Your task to perform on an android device: Add usb-c to usb-b to the cart on target, then select checkout. Image 0: 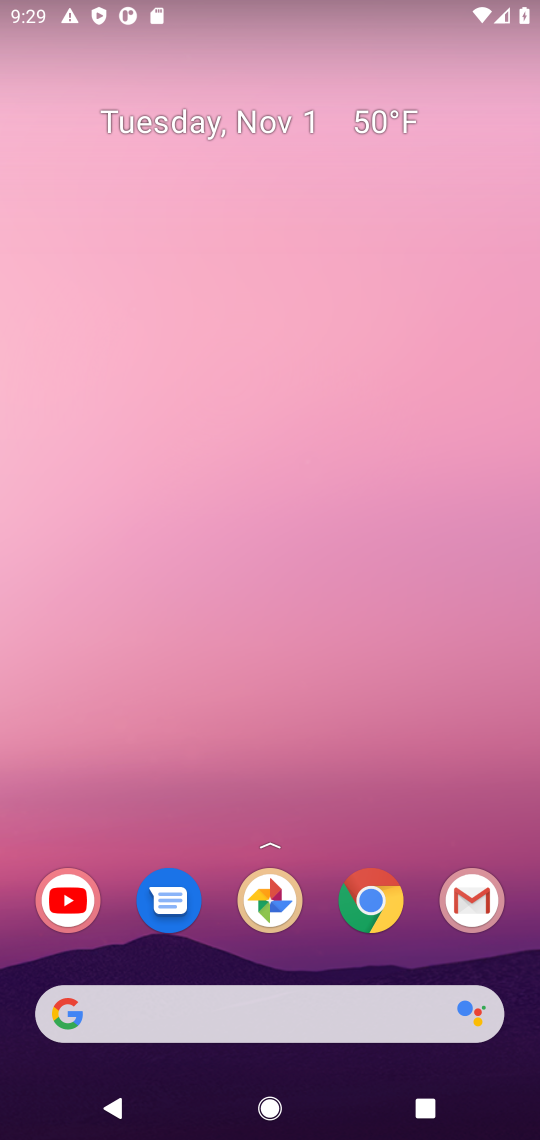
Step 0: click (351, 909)
Your task to perform on an android device: Add usb-c to usb-b to the cart on target, then select checkout. Image 1: 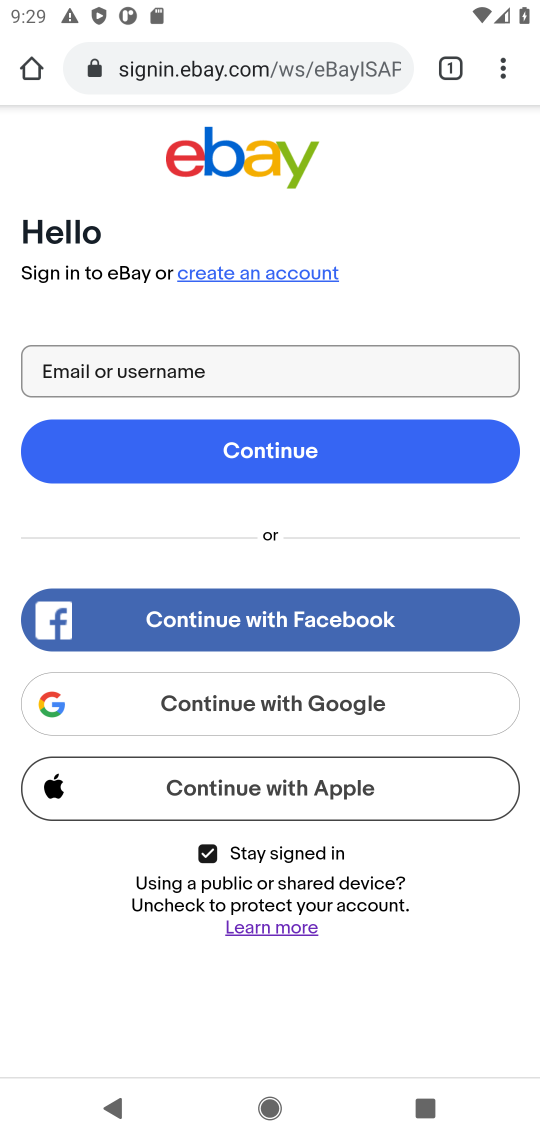
Step 1: click (216, 65)
Your task to perform on an android device: Add usb-c to usb-b to the cart on target, then select checkout. Image 2: 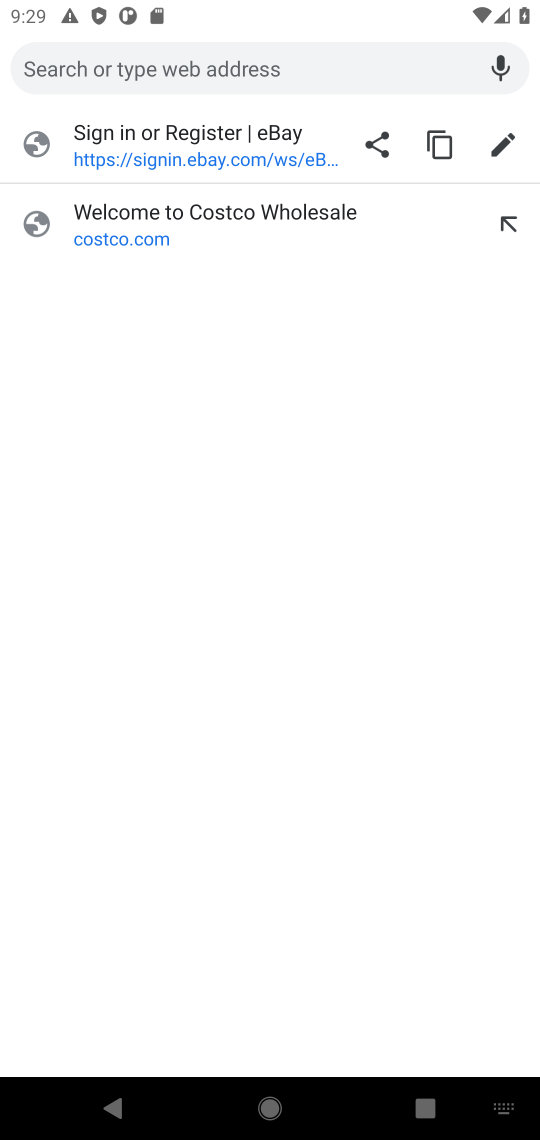
Step 2: type "target"
Your task to perform on an android device: Add usb-c to usb-b to the cart on target, then select checkout. Image 3: 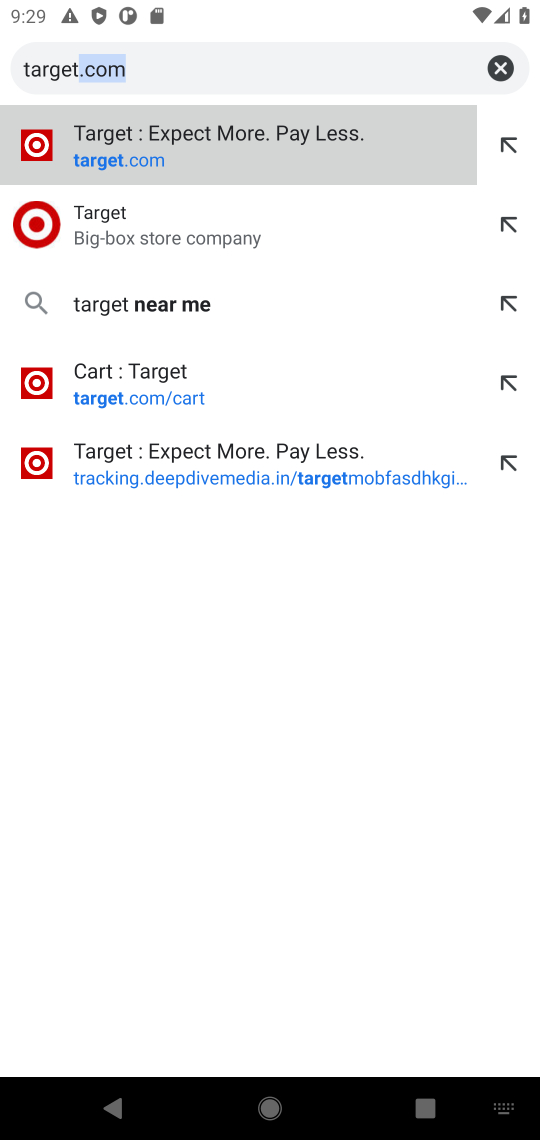
Step 3: click (221, 241)
Your task to perform on an android device: Add usb-c to usb-b to the cart on target, then select checkout. Image 4: 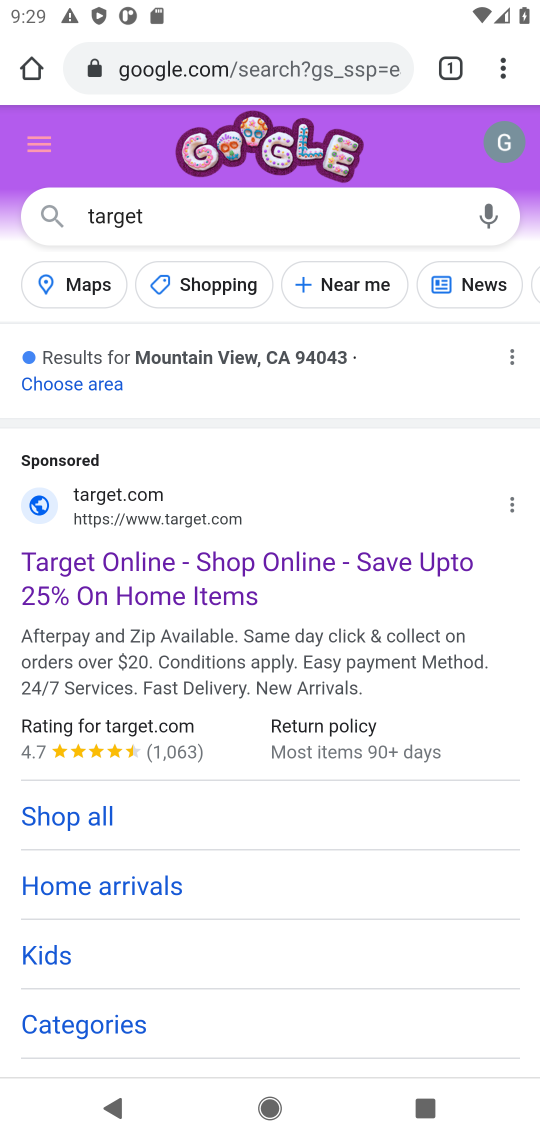
Step 4: click (139, 587)
Your task to perform on an android device: Add usb-c to usb-b to the cart on target, then select checkout. Image 5: 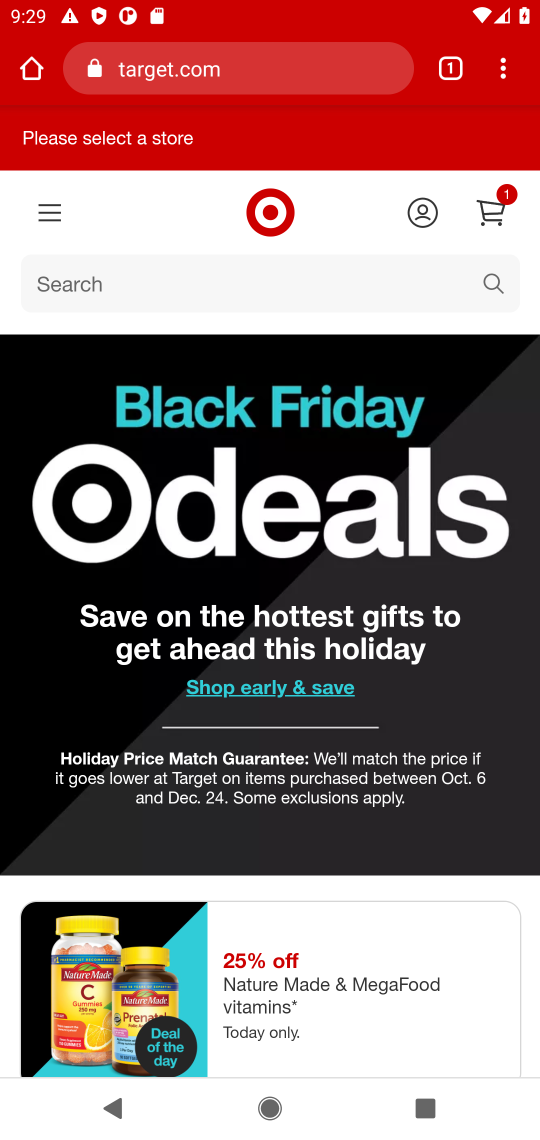
Step 5: click (127, 264)
Your task to perform on an android device: Add usb-c to usb-b to the cart on target, then select checkout. Image 6: 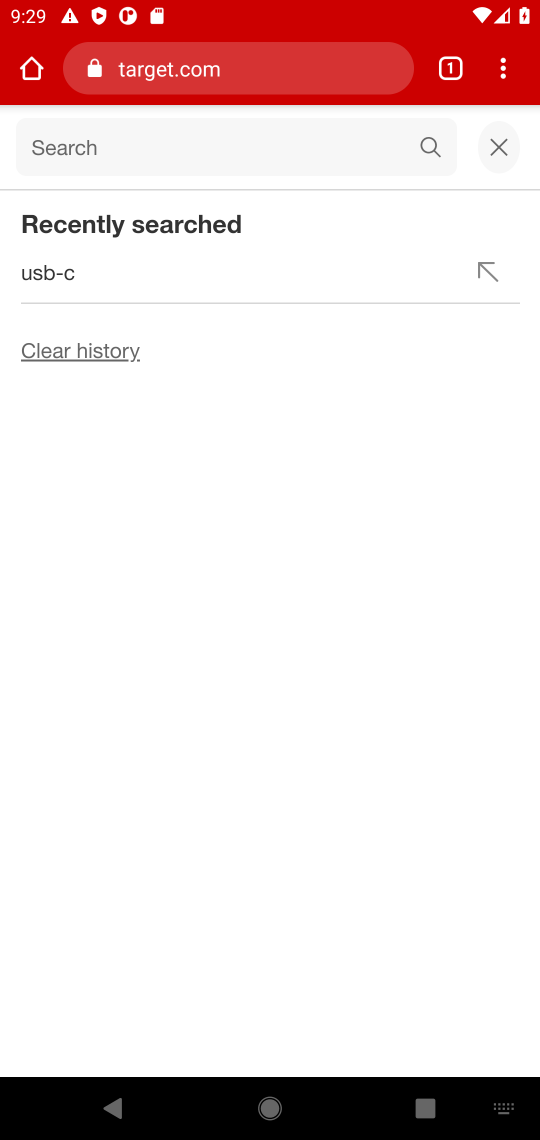
Step 6: type " usb-c to usb-b"
Your task to perform on an android device: Add usb-c to usb-b to the cart on target, then select checkout. Image 7: 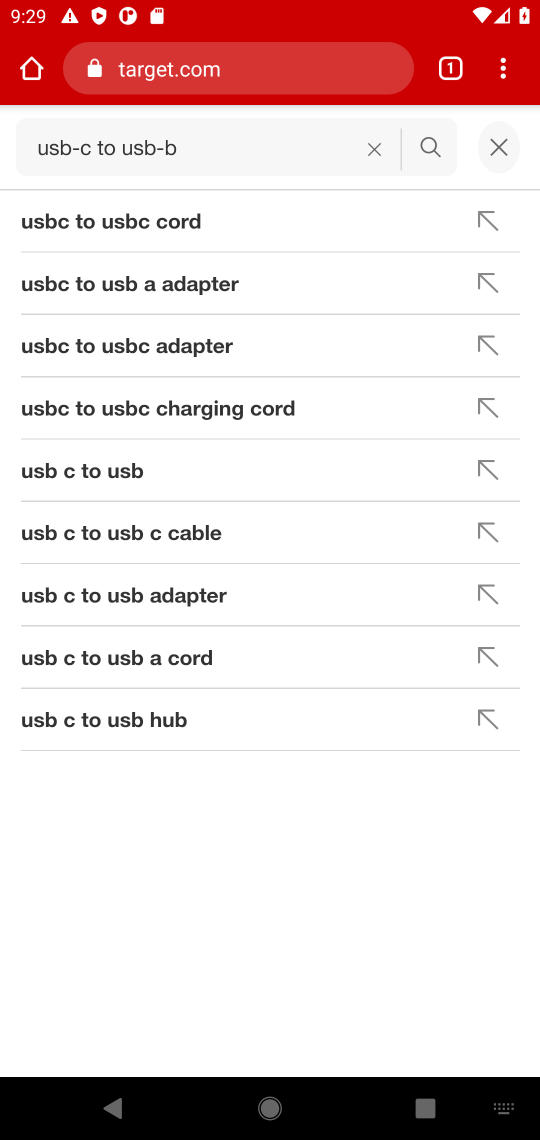
Step 7: click (449, 163)
Your task to perform on an android device: Add usb-c to usb-b to the cart on target, then select checkout. Image 8: 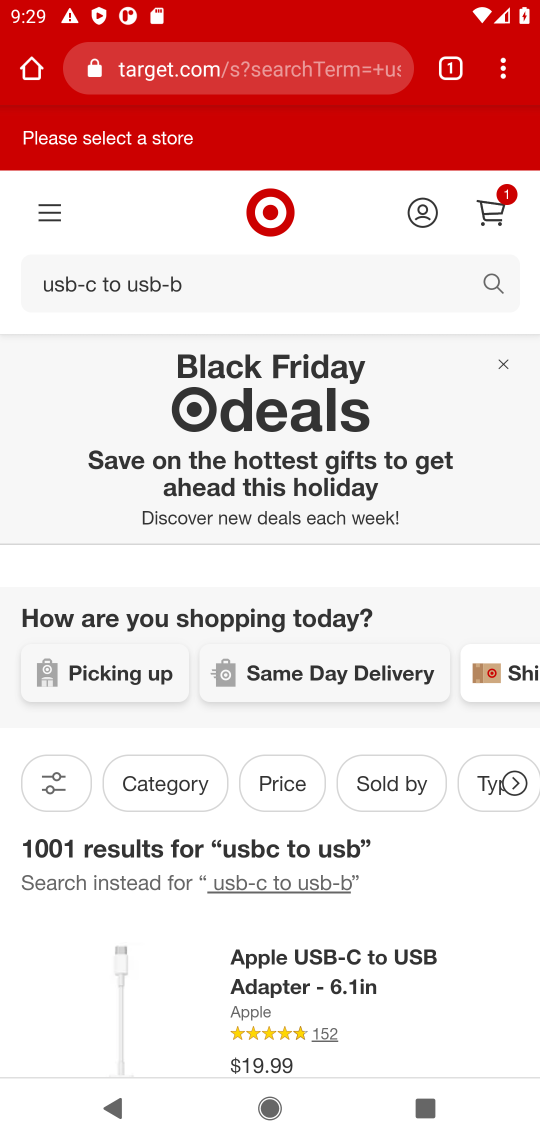
Step 8: click (368, 1003)
Your task to perform on an android device: Add usb-c to usb-b to the cart on target, then select checkout. Image 9: 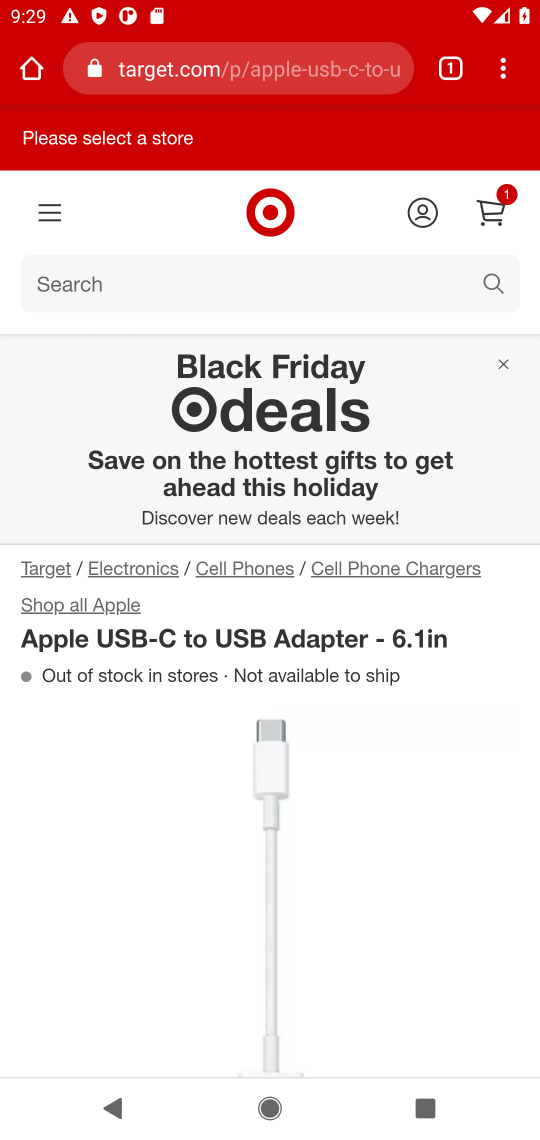
Step 9: drag from (368, 1003) to (216, 14)
Your task to perform on an android device: Add usb-c to usb-b to the cart on target, then select checkout. Image 10: 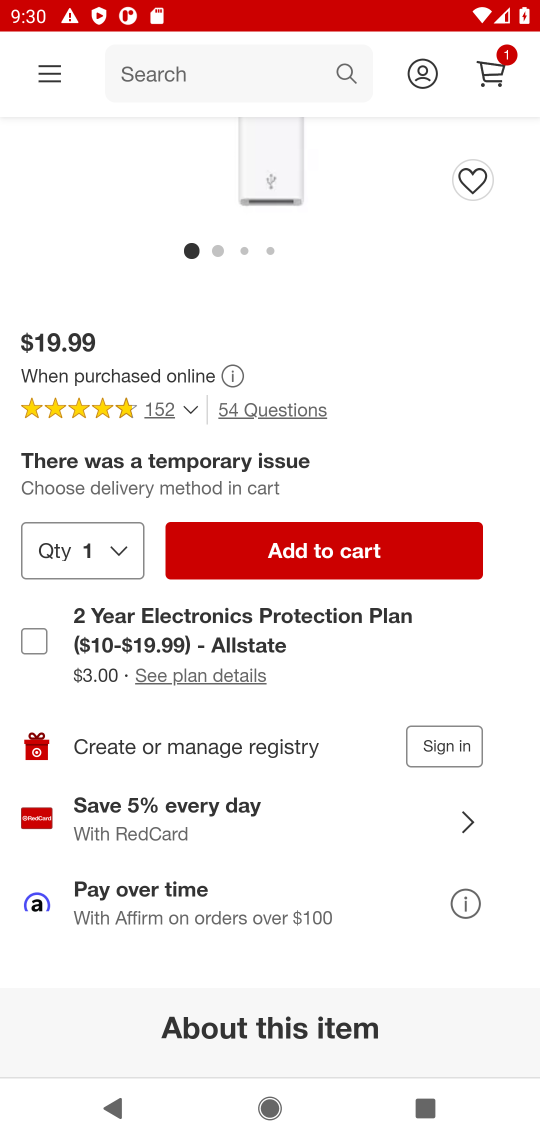
Step 10: click (354, 555)
Your task to perform on an android device: Add usb-c to usb-b to the cart on target, then select checkout. Image 11: 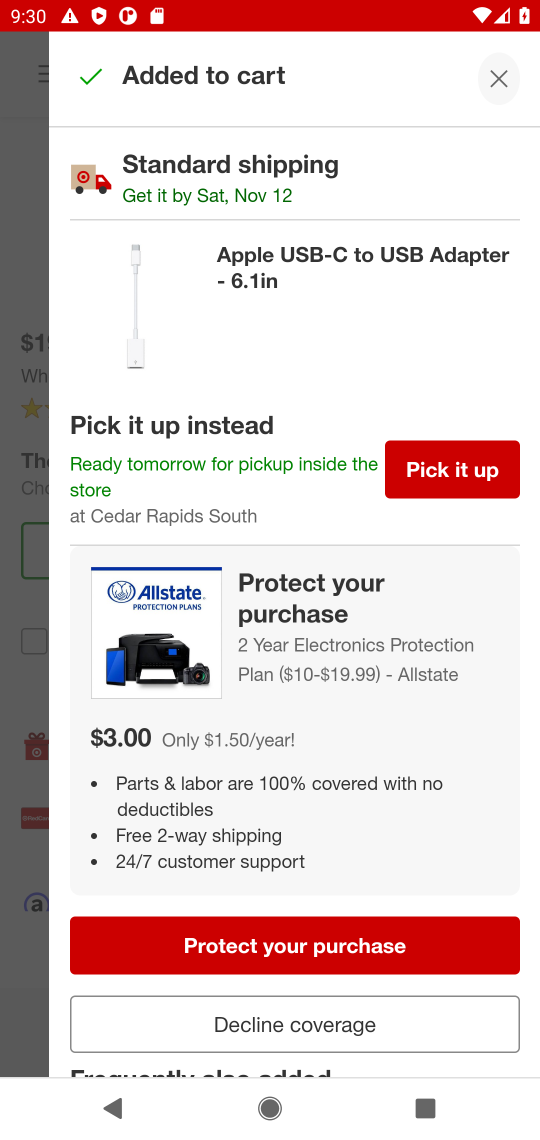
Step 11: click (505, 94)
Your task to perform on an android device: Add usb-c to usb-b to the cart on target, then select checkout. Image 12: 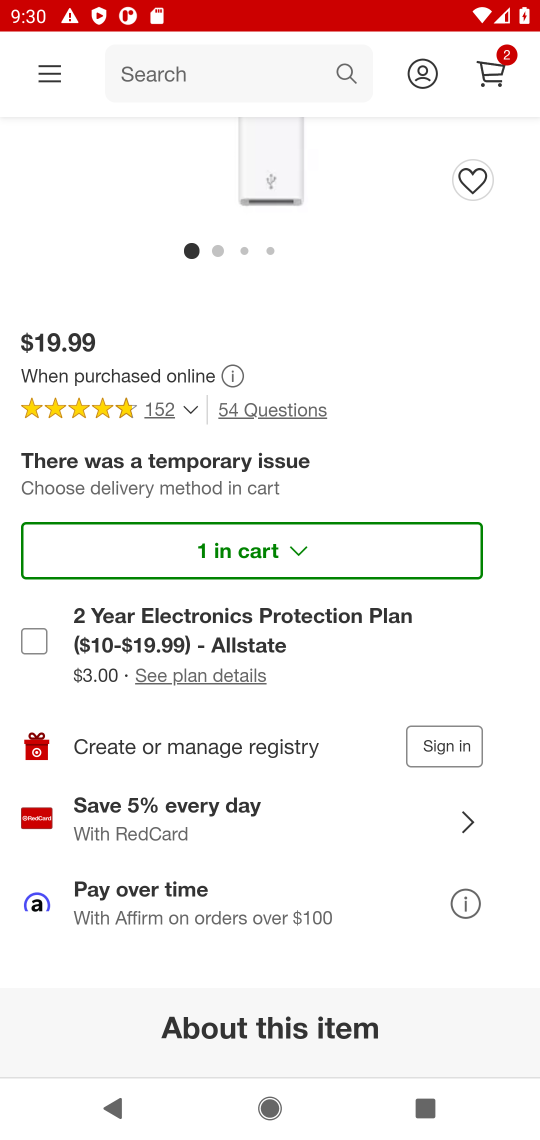
Step 12: click (498, 84)
Your task to perform on an android device: Add usb-c to usb-b to the cart on target, then select checkout. Image 13: 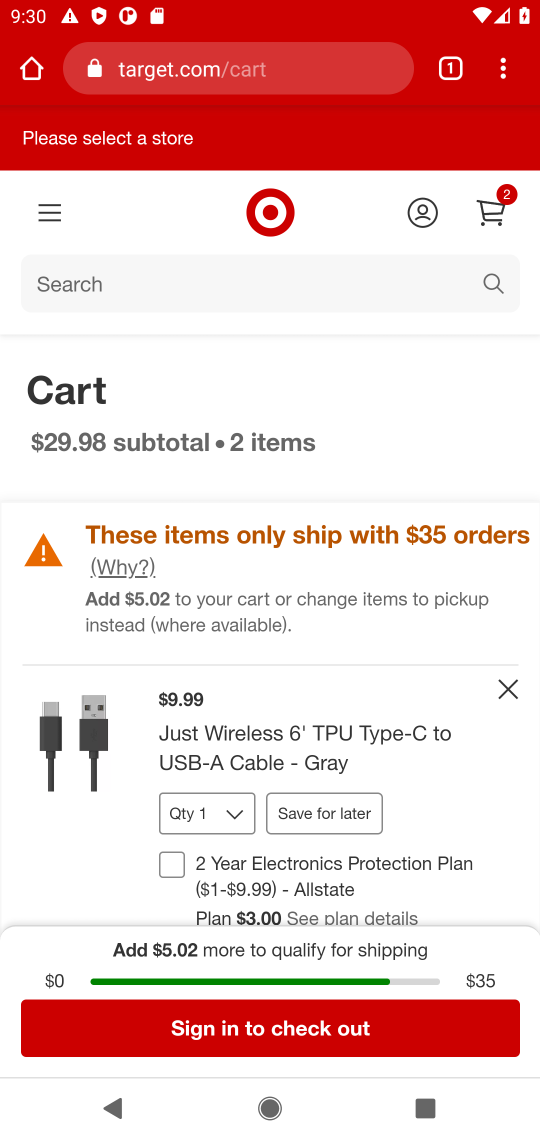
Step 13: click (382, 1052)
Your task to perform on an android device: Add usb-c to usb-b to the cart on target, then select checkout. Image 14: 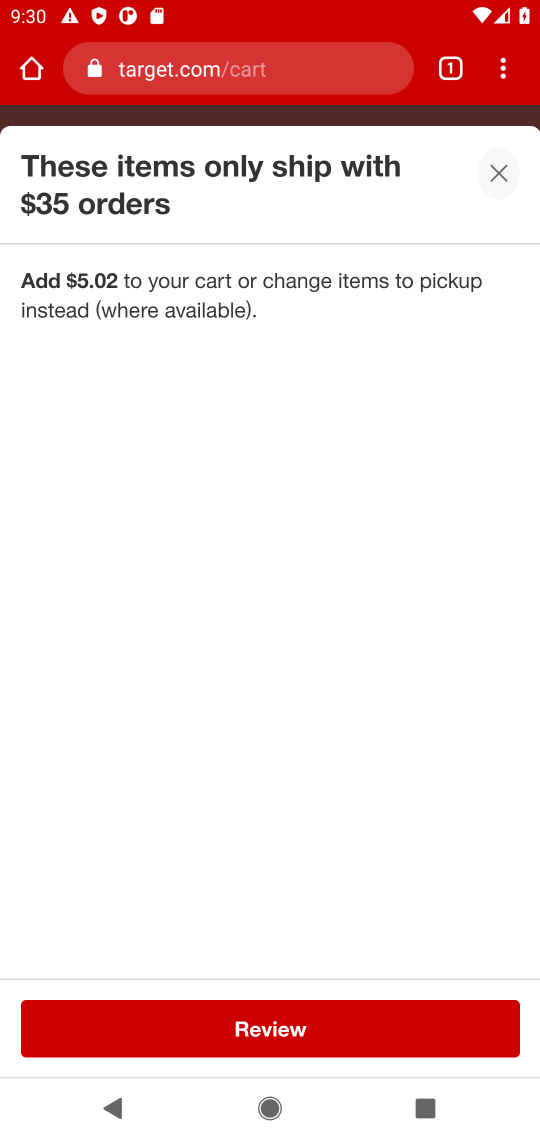
Step 14: task complete